Your task to perform on an android device: toggle wifi Image 0: 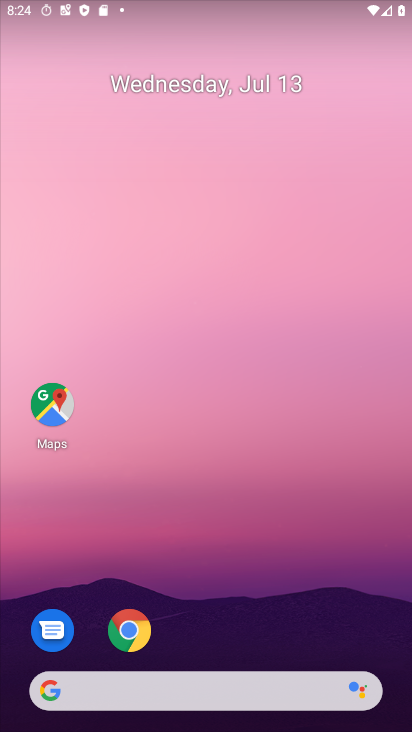
Step 0: drag from (357, 616) to (344, 132)
Your task to perform on an android device: toggle wifi Image 1: 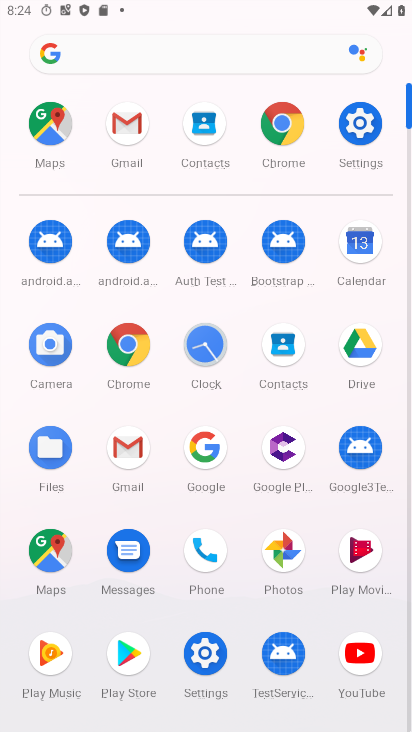
Step 1: click (353, 133)
Your task to perform on an android device: toggle wifi Image 2: 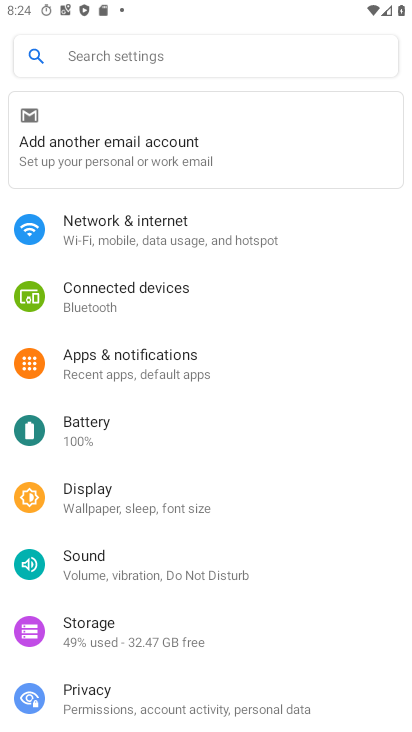
Step 2: drag from (339, 453) to (339, 350)
Your task to perform on an android device: toggle wifi Image 3: 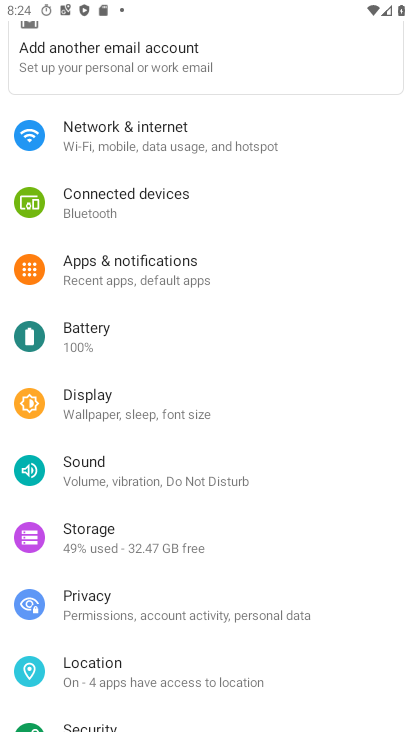
Step 3: drag from (323, 458) to (321, 328)
Your task to perform on an android device: toggle wifi Image 4: 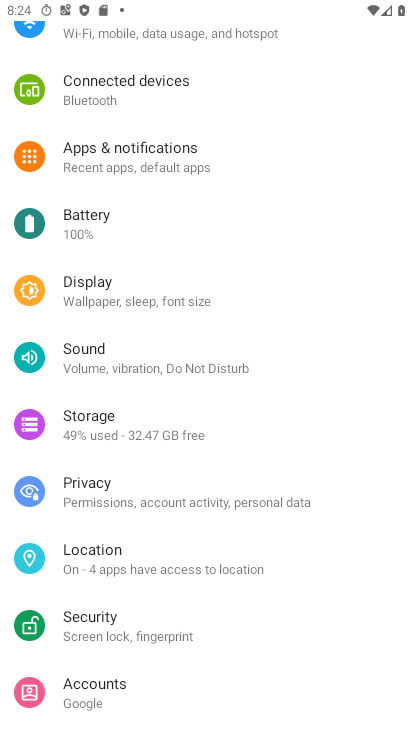
Step 4: drag from (356, 498) to (361, 310)
Your task to perform on an android device: toggle wifi Image 5: 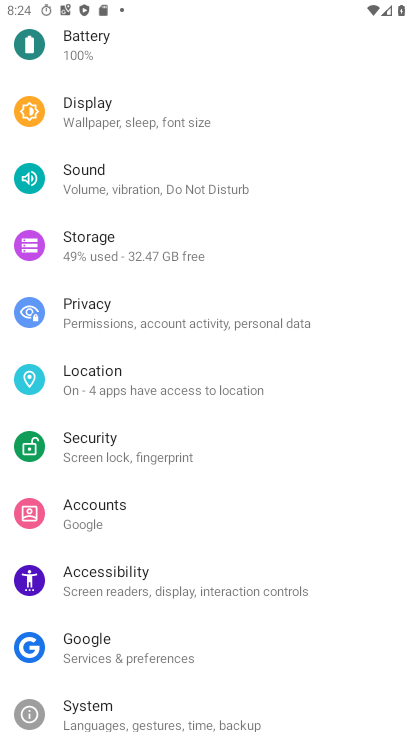
Step 5: drag from (371, 484) to (372, 291)
Your task to perform on an android device: toggle wifi Image 6: 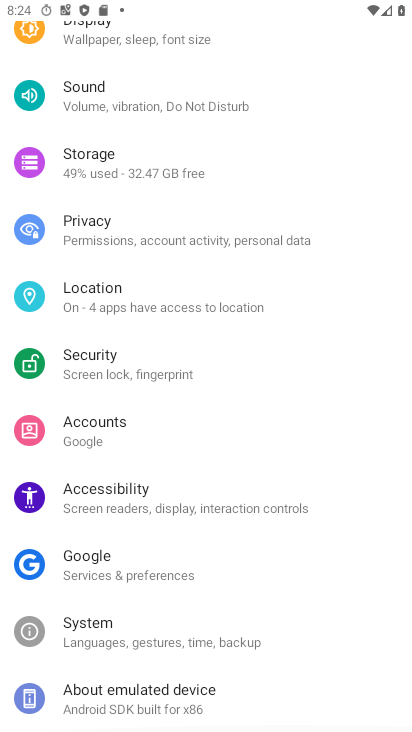
Step 6: drag from (372, 215) to (359, 306)
Your task to perform on an android device: toggle wifi Image 7: 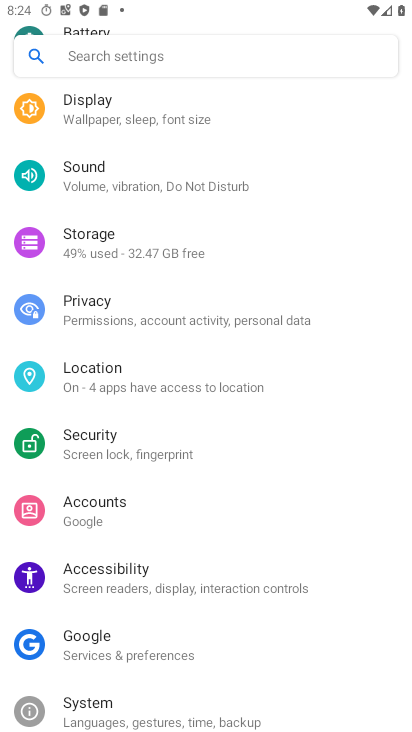
Step 7: drag from (344, 170) to (339, 318)
Your task to perform on an android device: toggle wifi Image 8: 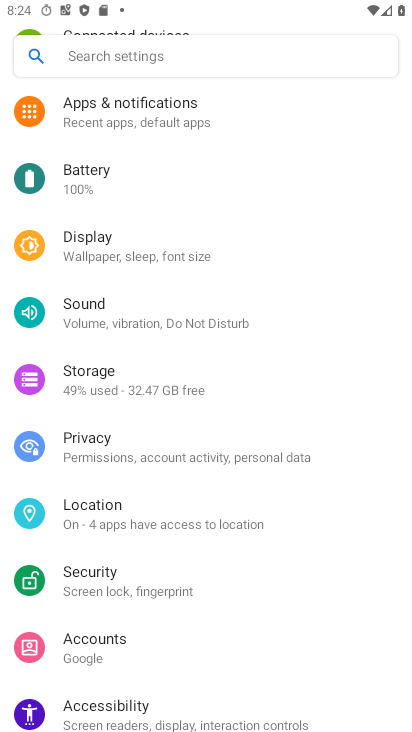
Step 8: drag from (328, 194) to (330, 364)
Your task to perform on an android device: toggle wifi Image 9: 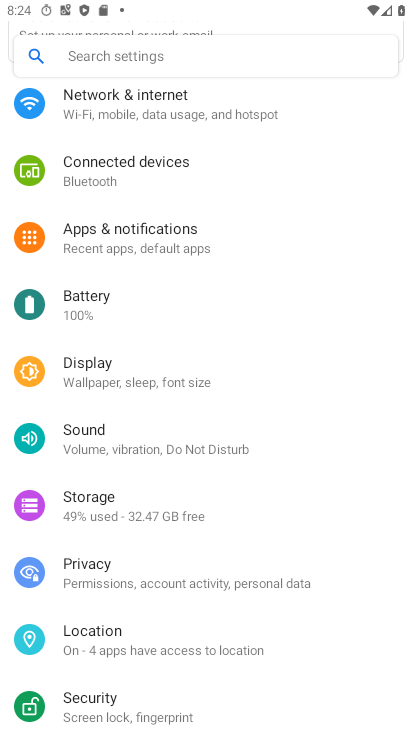
Step 9: drag from (346, 196) to (326, 384)
Your task to perform on an android device: toggle wifi Image 10: 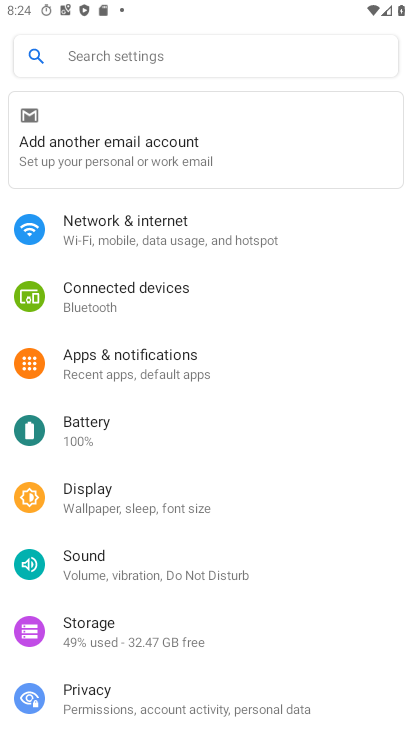
Step 10: click (284, 221)
Your task to perform on an android device: toggle wifi Image 11: 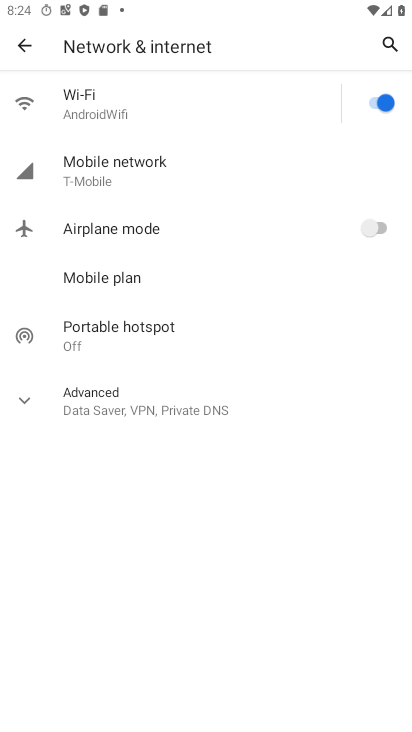
Step 11: click (382, 102)
Your task to perform on an android device: toggle wifi Image 12: 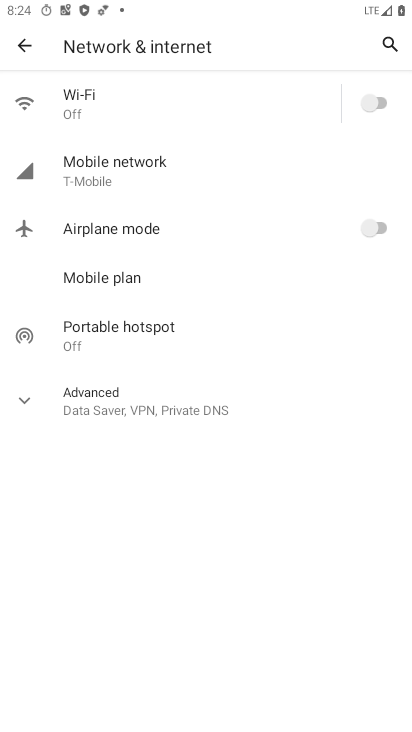
Step 12: task complete